Your task to perform on an android device: Open Amazon Image 0: 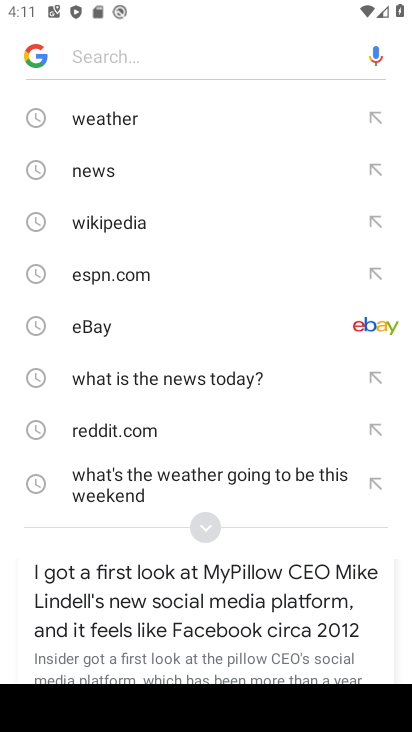
Step 0: press back button
Your task to perform on an android device: Open Amazon Image 1: 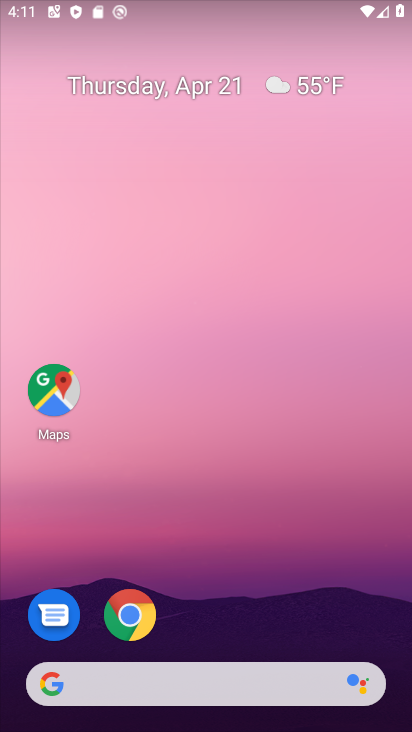
Step 1: drag from (249, 485) to (241, 56)
Your task to perform on an android device: Open Amazon Image 2: 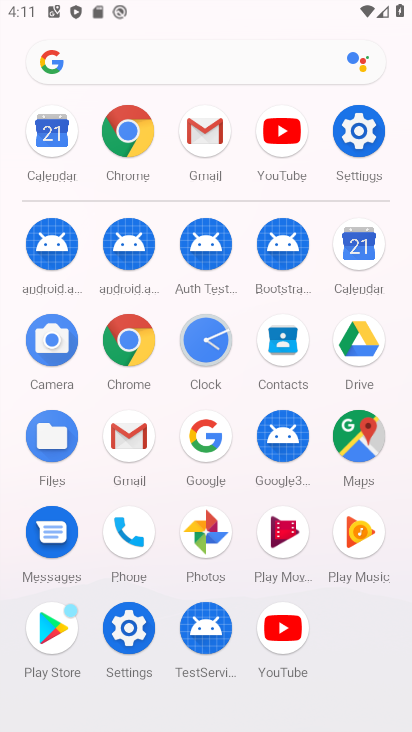
Step 2: click (118, 131)
Your task to perform on an android device: Open Amazon Image 3: 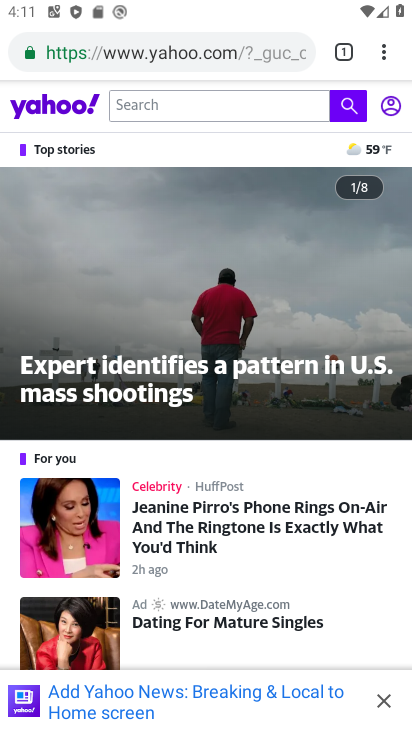
Step 3: click (171, 38)
Your task to perform on an android device: Open Amazon Image 4: 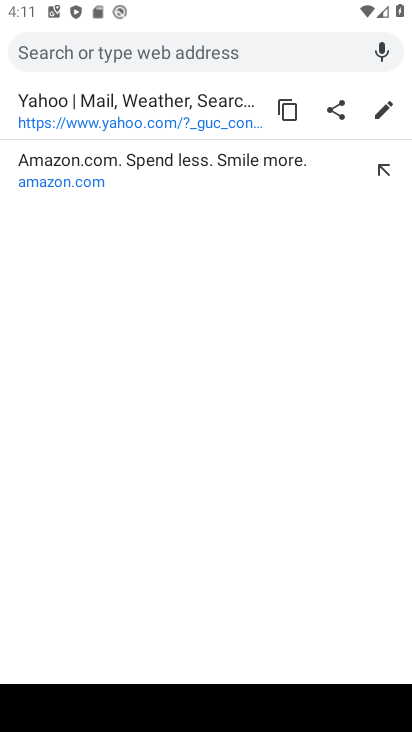
Step 4: click (157, 188)
Your task to perform on an android device: Open Amazon Image 5: 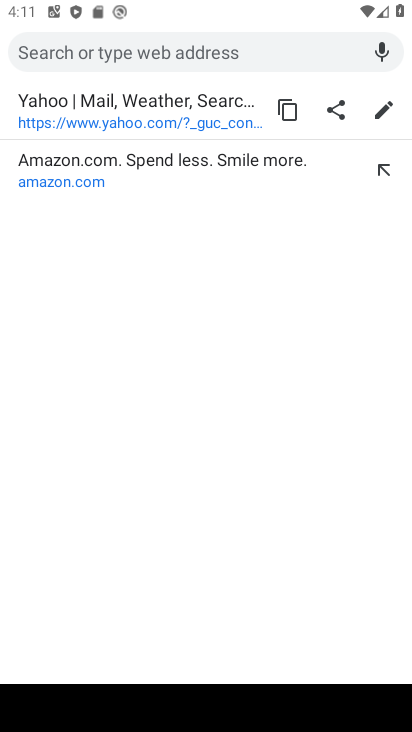
Step 5: click (160, 157)
Your task to perform on an android device: Open Amazon Image 6: 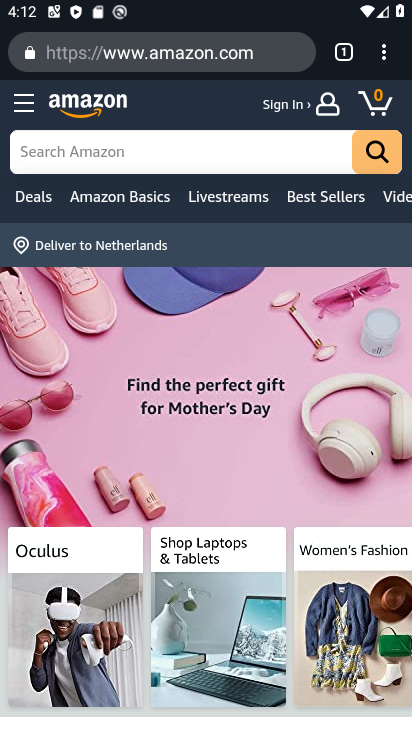
Step 6: task complete